Your task to perform on an android device: What's on my calendar tomorrow? Image 0: 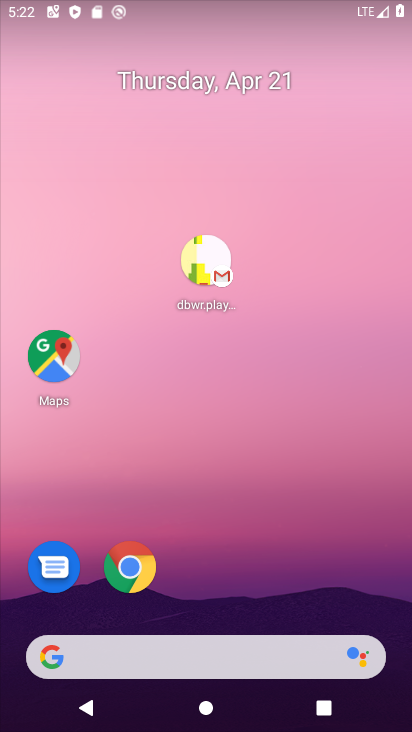
Step 0: drag from (195, 596) to (300, 44)
Your task to perform on an android device: What's on my calendar tomorrow? Image 1: 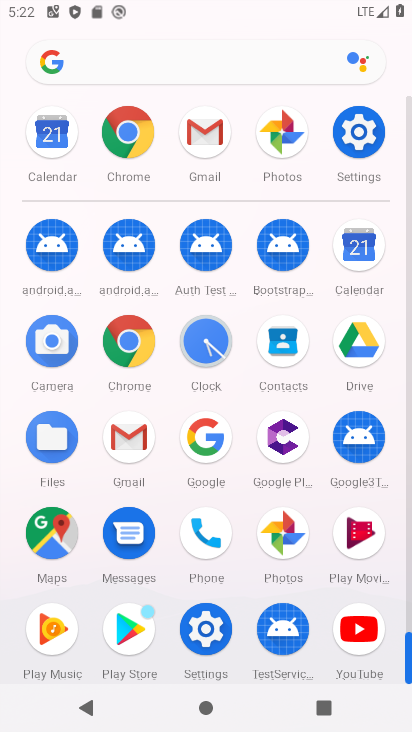
Step 1: click (353, 257)
Your task to perform on an android device: What's on my calendar tomorrow? Image 2: 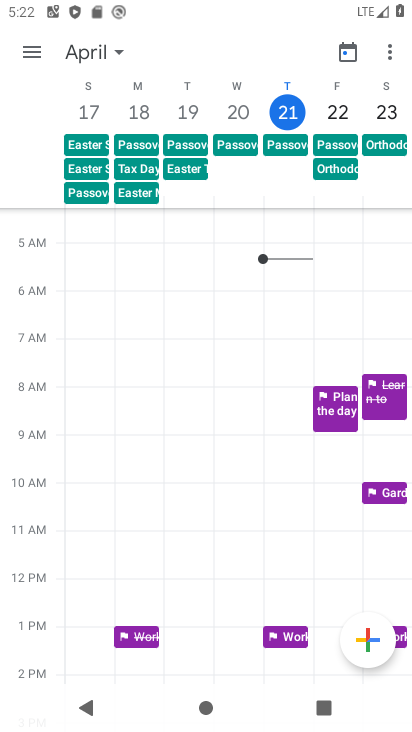
Step 2: drag from (88, 122) to (399, 161)
Your task to perform on an android device: What's on my calendar tomorrow? Image 3: 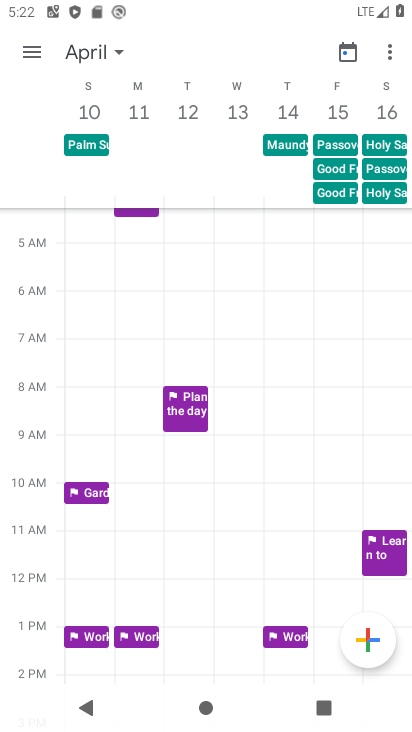
Step 3: drag from (344, 159) to (74, 122)
Your task to perform on an android device: What's on my calendar tomorrow? Image 4: 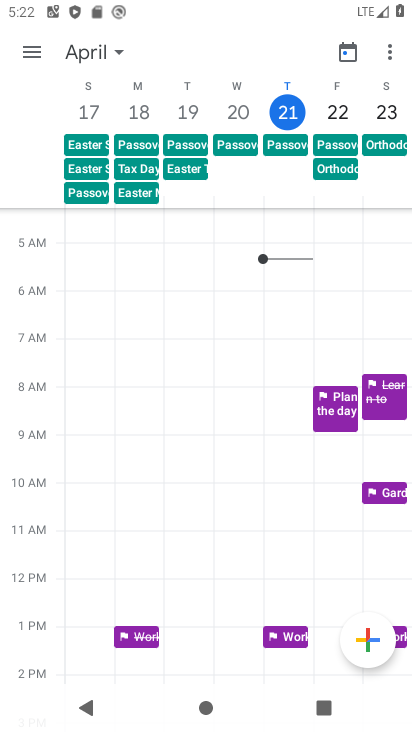
Step 4: click (34, 41)
Your task to perform on an android device: What's on my calendar tomorrow? Image 5: 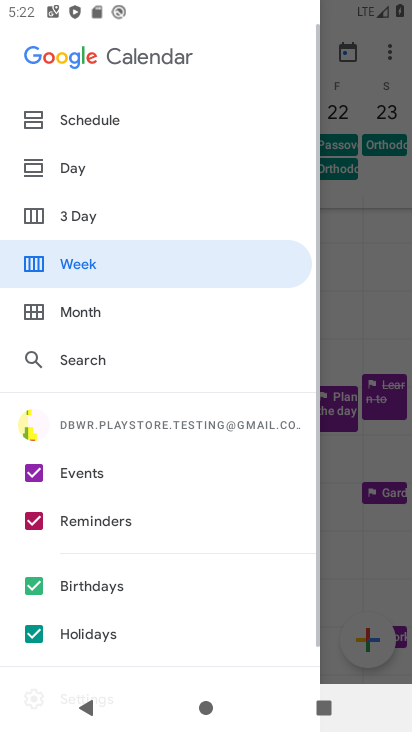
Step 5: click (79, 219)
Your task to perform on an android device: What's on my calendar tomorrow? Image 6: 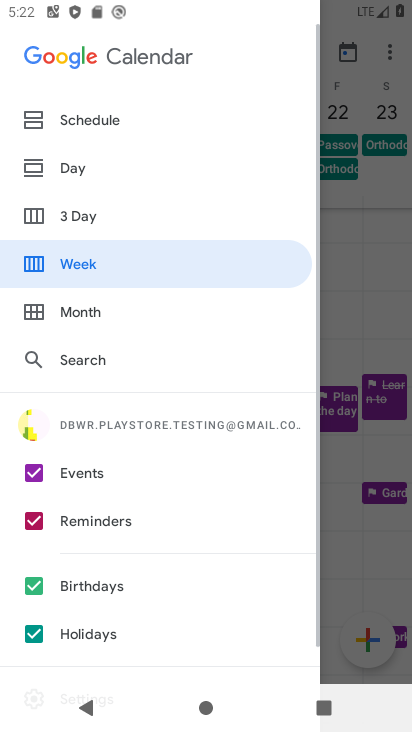
Step 6: click (79, 217)
Your task to perform on an android device: What's on my calendar tomorrow? Image 7: 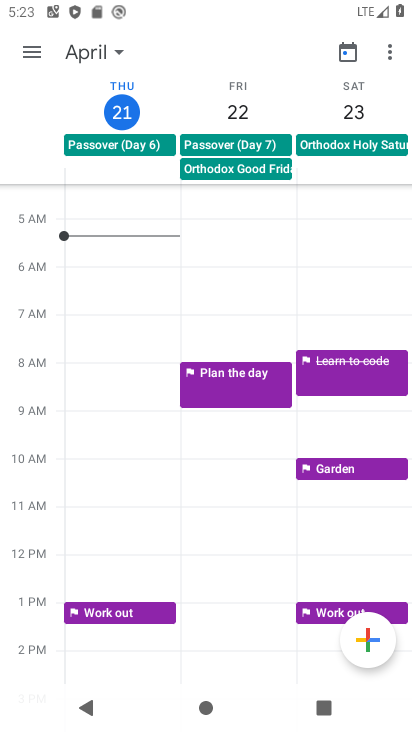
Step 7: task complete